Your task to perform on an android device: Is it going to rain today? Image 0: 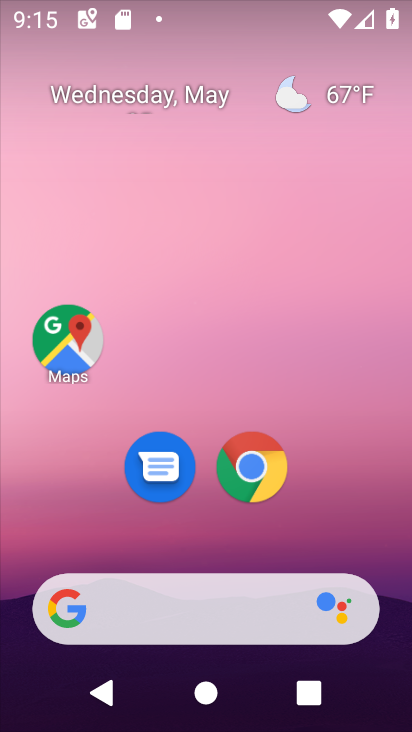
Step 0: click (356, 98)
Your task to perform on an android device: Is it going to rain today? Image 1: 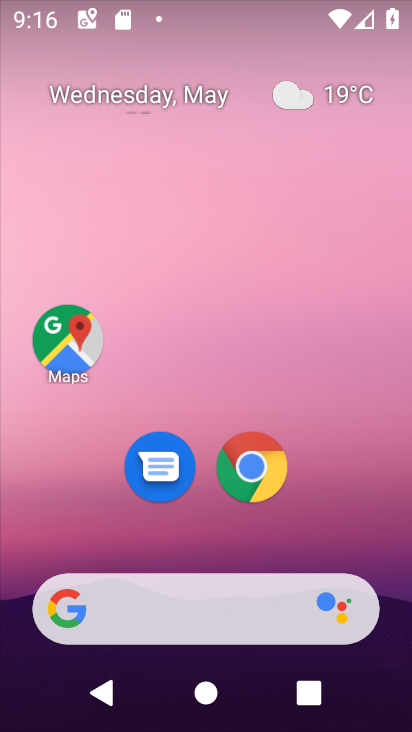
Step 1: click (350, 95)
Your task to perform on an android device: Is it going to rain today? Image 2: 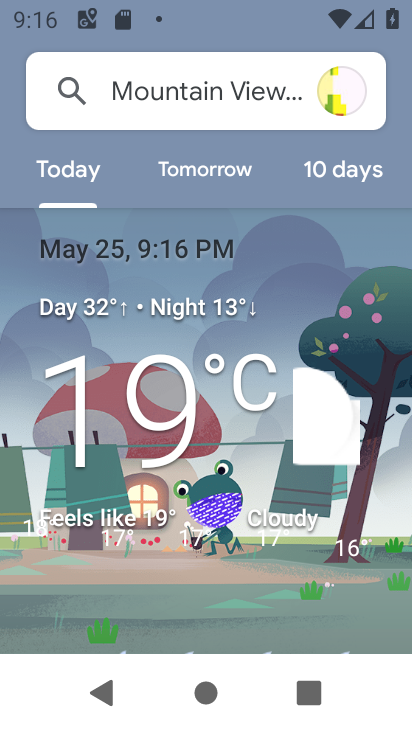
Step 2: task complete